Your task to perform on an android device: turn on translation in the chrome app Image 0: 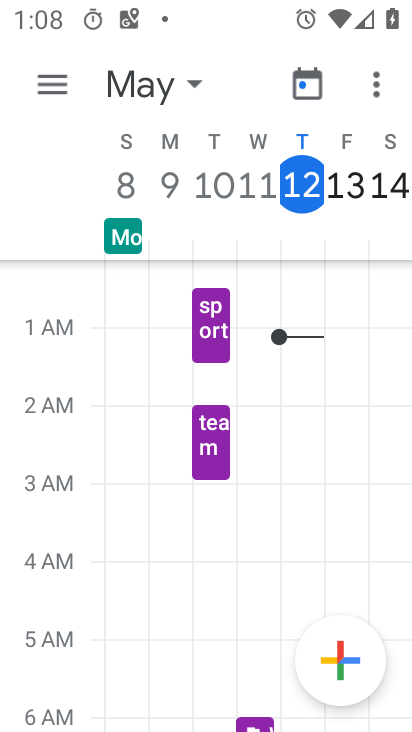
Step 0: press home button
Your task to perform on an android device: turn on translation in the chrome app Image 1: 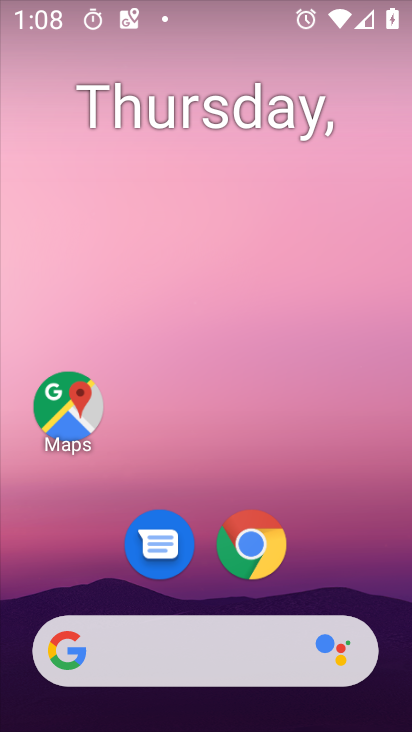
Step 1: click (244, 537)
Your task to perform on an android device: turn on translation in the chrome app Image 2: 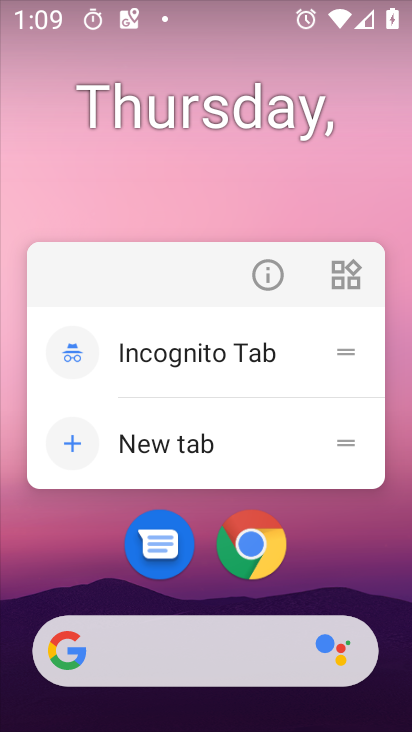
Step 2: click (240, 545)
Your task to perform on an android device: turn on translation in the chrome app Image 3: 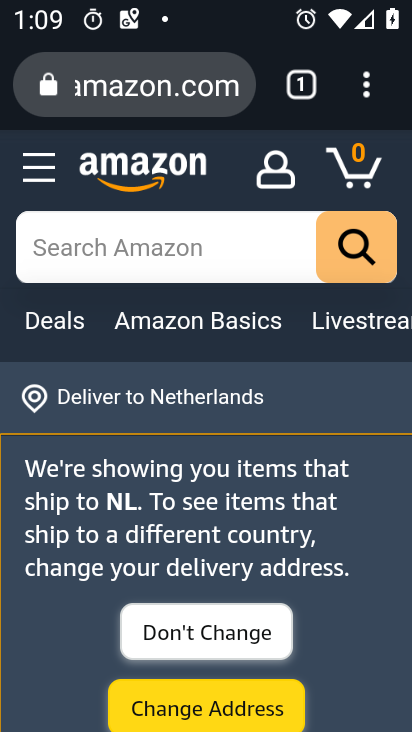
Step 3: click (374, 87)
Your task to perform on an android device: turn on translation in the chrome app Image 4: 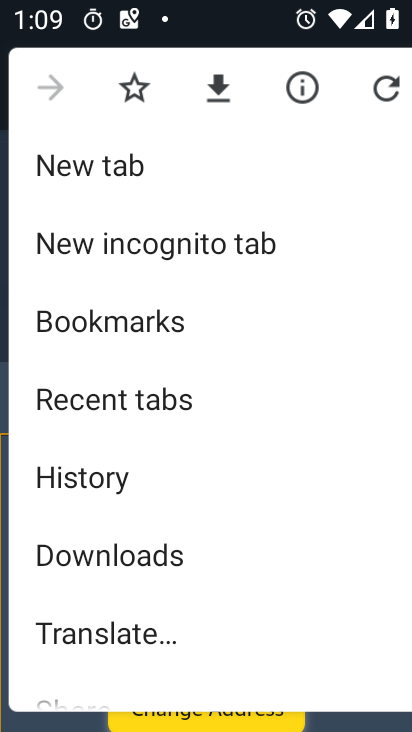
Step 4: click (72, 645)
Your task to perform on an android device: turn on translation in the chrome app Image 5: 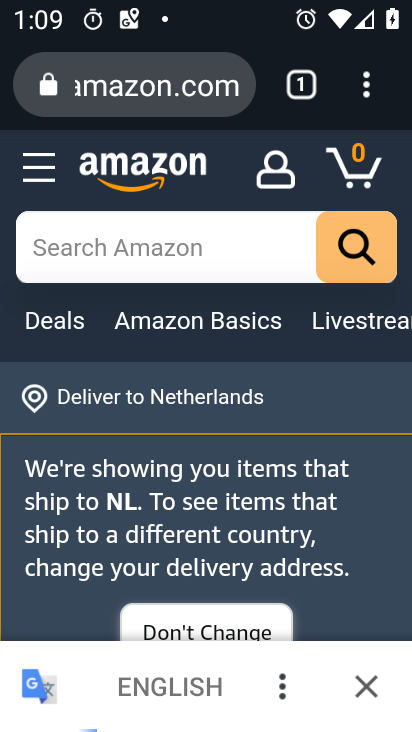
Step 5: click (353, 91)
Your task to perform on an android device: turn on translation in the chrome app Image 6: 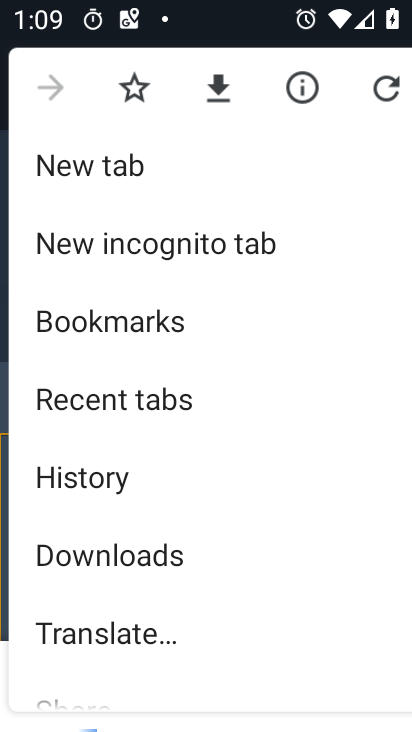
Step 6: drag from (45, 644) to (206, 135)
Your task to perform on an android device: turn on translation in the chrome app Image 7: 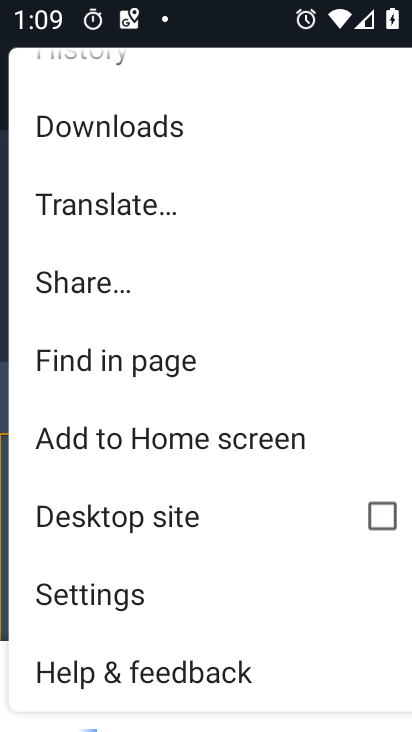
Step 7: click (111, 596)
Your task to perform on an android device: turn on translation in the chrome app Image 8: 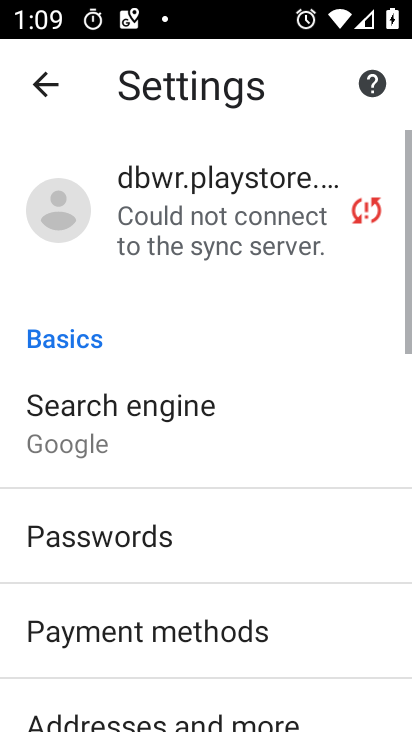
Step 8: drag from (49, 682) to (266, 123)
Your task to perform on an android device: turn on translation in the chrome app Image 9: 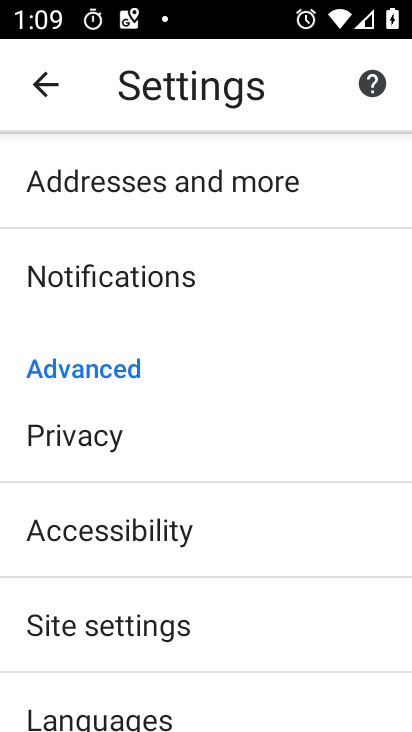
Step 9: drag from (148, 701) to (235, 348)
Your task to perform on an android device: turn on translation in the chrome app Image 10: 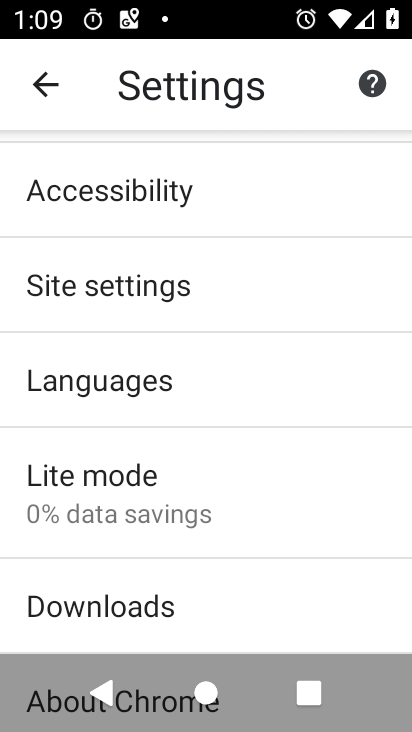
Step 10: click (201, 382)
Your task to perform on an android device: turn on translation in the chrome app Image 11: 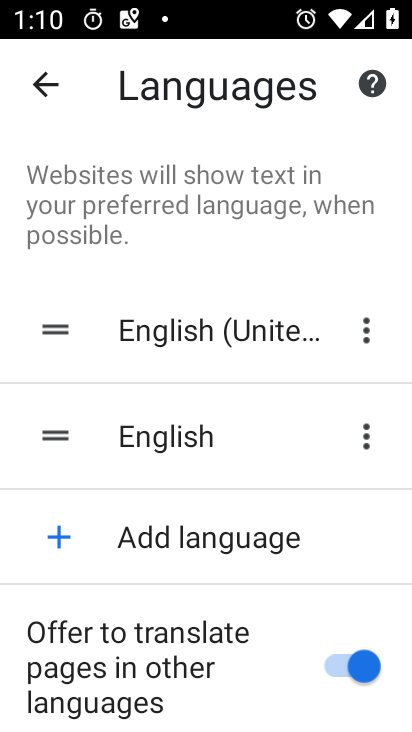
Step 11: task complete